Your task to perform on an android device: Open the phone app and click the voicemail tab. Image 0: 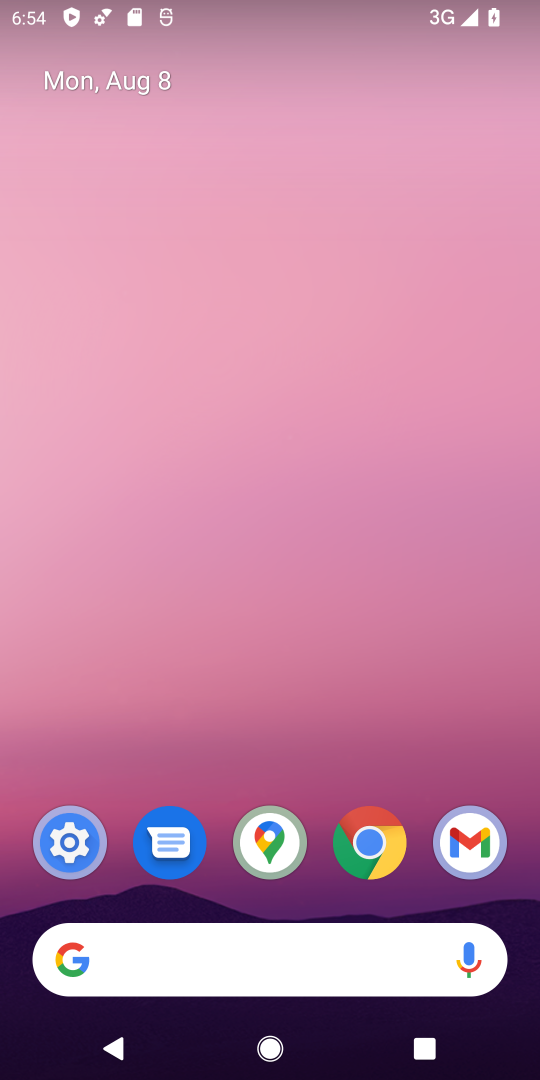
Step 0: drag from (217, 912) to (184, 98)
Your task to perform on an android device: Open the phone app and click the voicemail tab. Image 1: 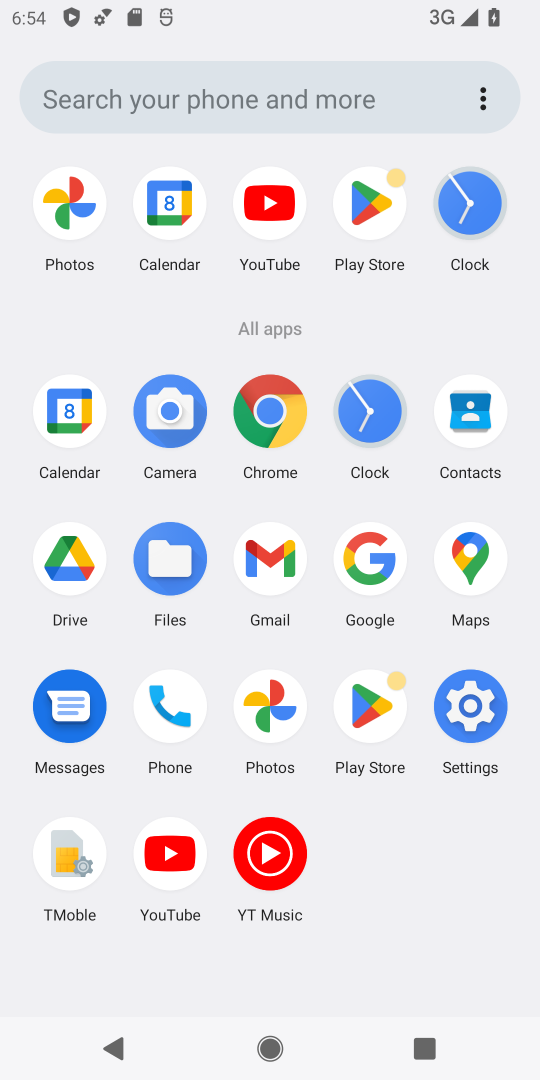
Step 1: click (160, 699)
Your task to perform on an android device: Open the phone app and click the voicemail tab. Image 2: 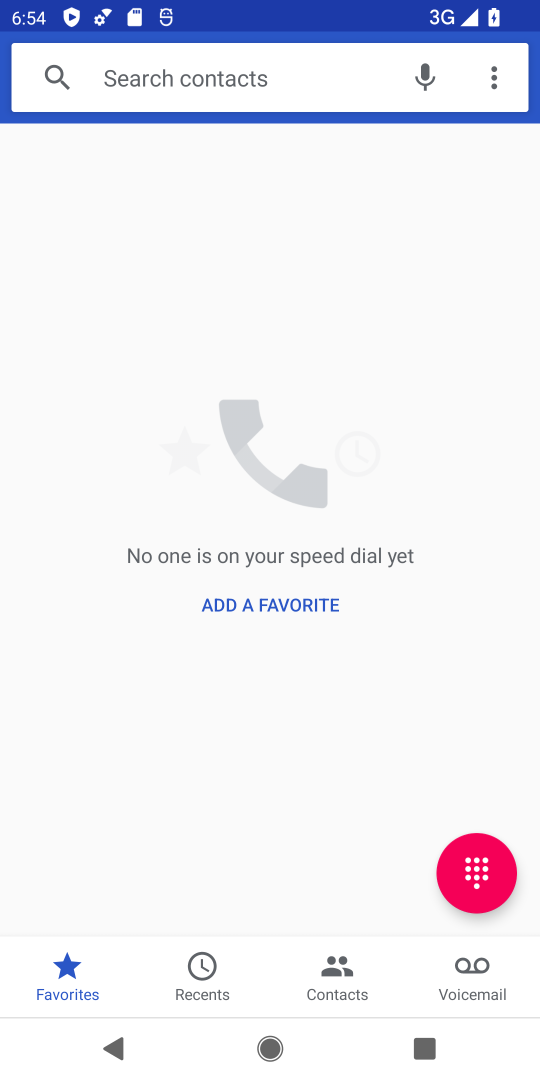
Step 2: click (464, 965)
Your task to perform on an android device: Open the phone app and click the voicemail tab. Image 3: 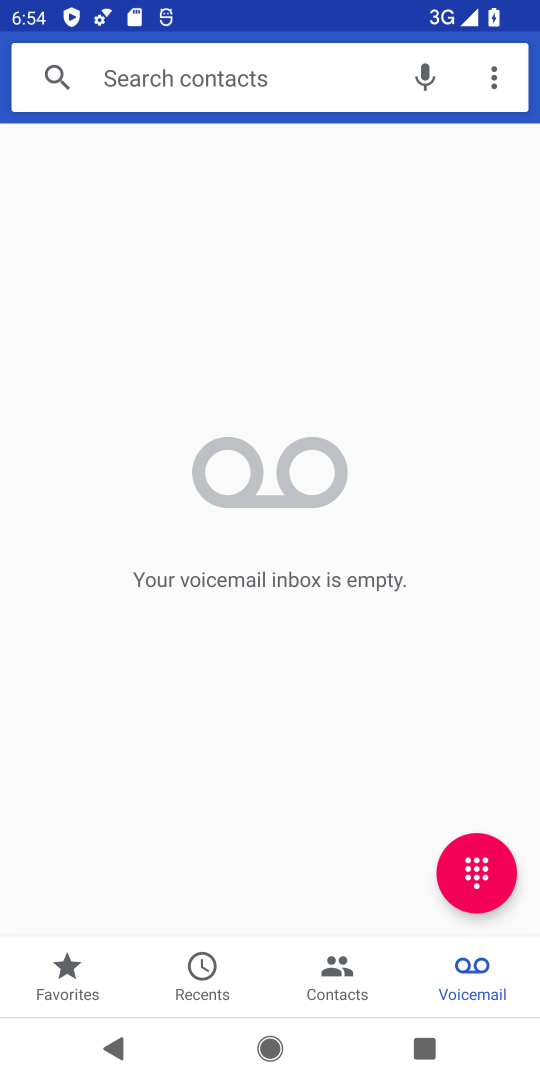
Step 3: task complete